Your task to perform on an android device: Open ESPN.com Image 0: 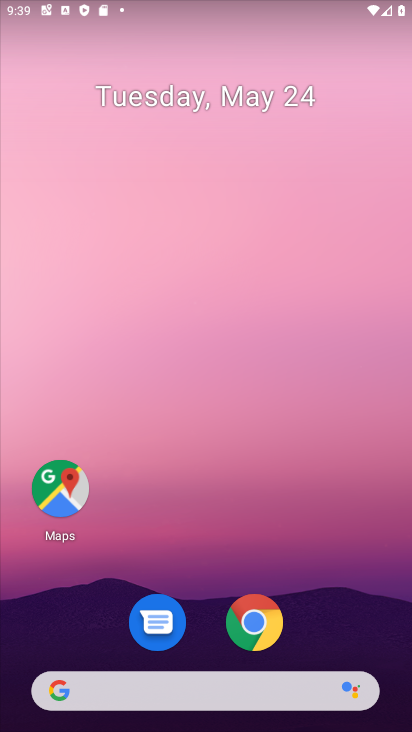
Step 0: drag from (224, 712) to (410, 141)
Your task to perform on an android device: Open ESPN.com Image 1: 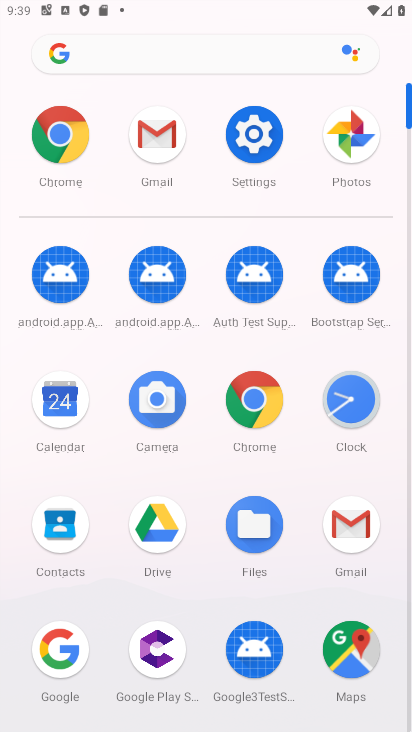
Step 1: click (65, 145)
Your task to perform on an android device: Open ESPN.com Image 2: 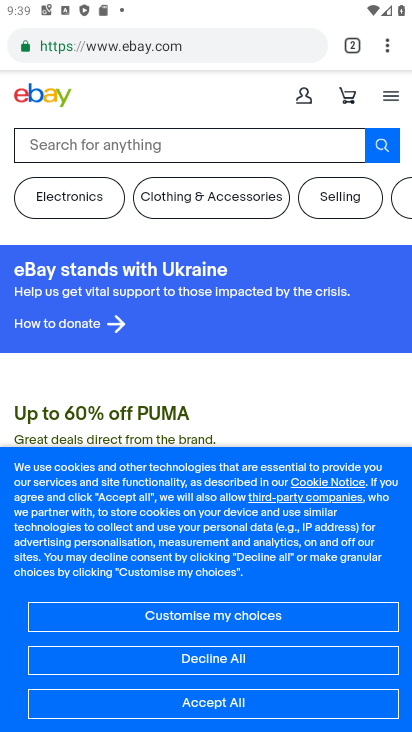
Step 2: click (170, 40)
Your task to perform on an android device: Open ESPN.com Image 3: 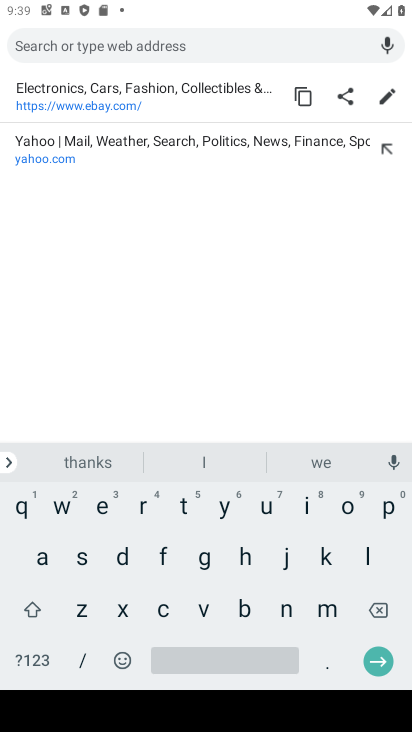
Step 3: click (106, 504)
Your task to perform on an android device: Open ESPN.com Image 4: 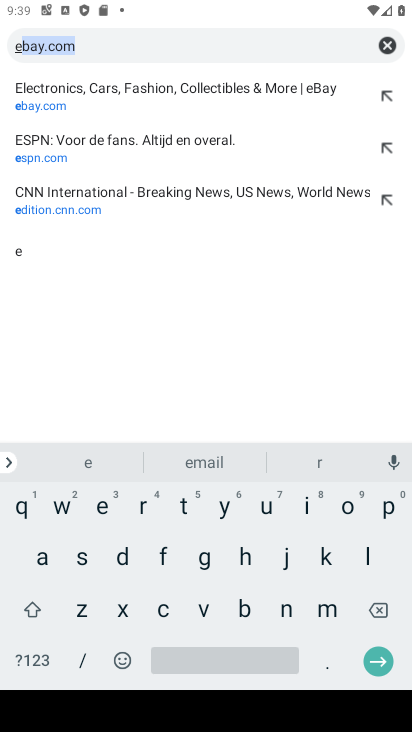
Step 4: click (80, 554)
Your task to perform on an android device: Open ESPN.com Image 5: 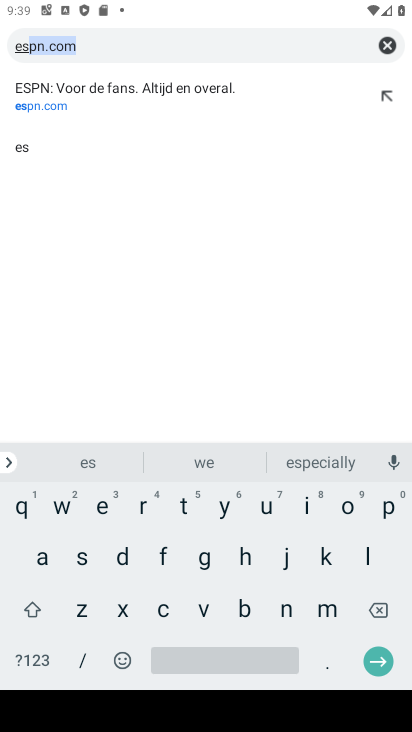
Step 5: click (117, 44)
Your task to perform on an android device: Open ESPN.com Image 6: 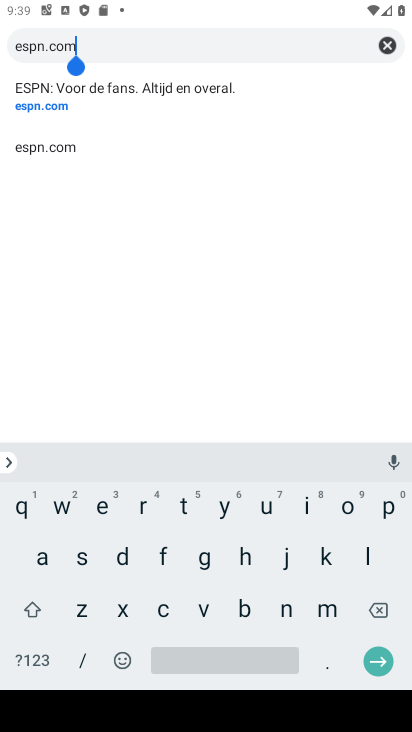
Step 6: click (387, 654)
Your task to perform on an android device: Open ESPN.com Image 7: 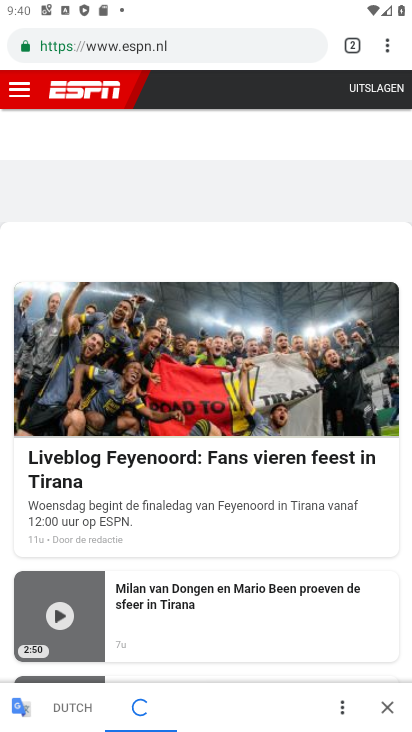
Step 7: task complete